Your task to perform on an android device: Open privacy settings Image 0: 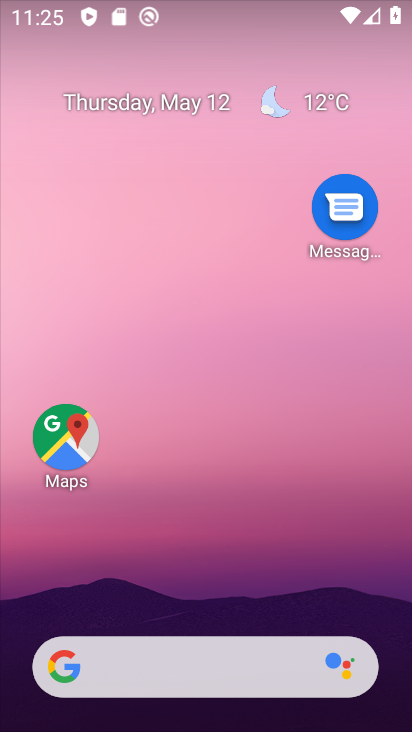
Step 0: press home button
Your task to perform on an android device: Open privacy settings Image 1: 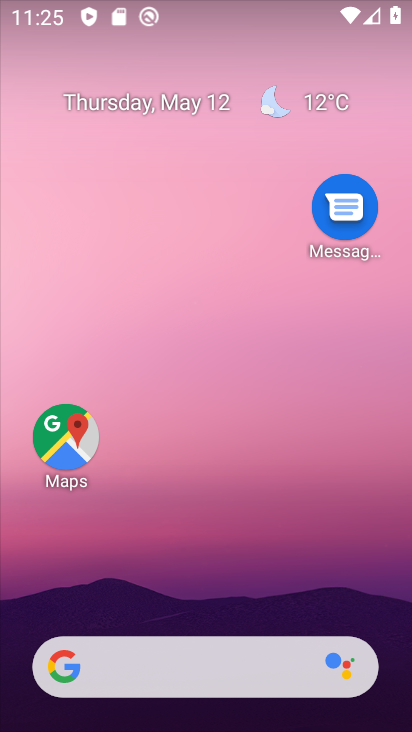
Step 1: drag from (305, 580) to (365, 179)
Your task to perform on an android device: Open privacy settings Image 2: 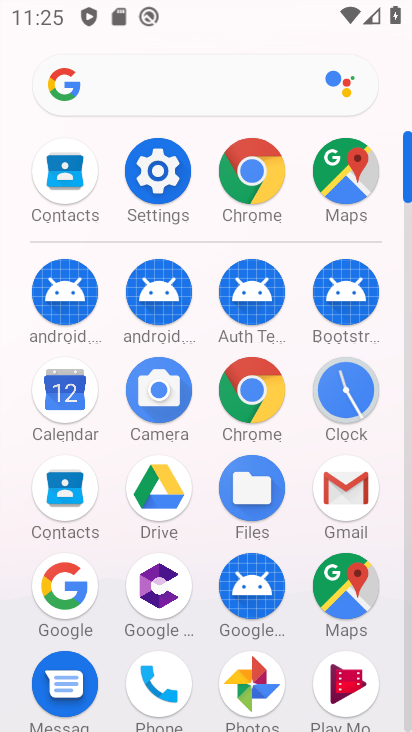
Step 2: click (171, 192)
Your task to perform on an android device: Open privacy settings Image 3: 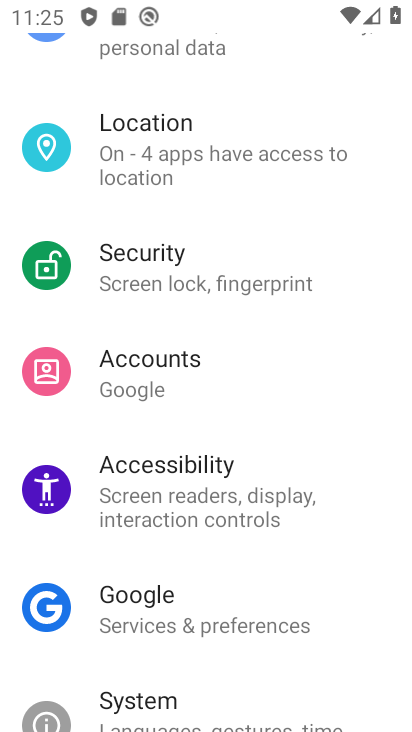
Step 3: drag from (179, 207) to (178, 614)
Your task to perform on an android device: Open privacy settings Image 4: 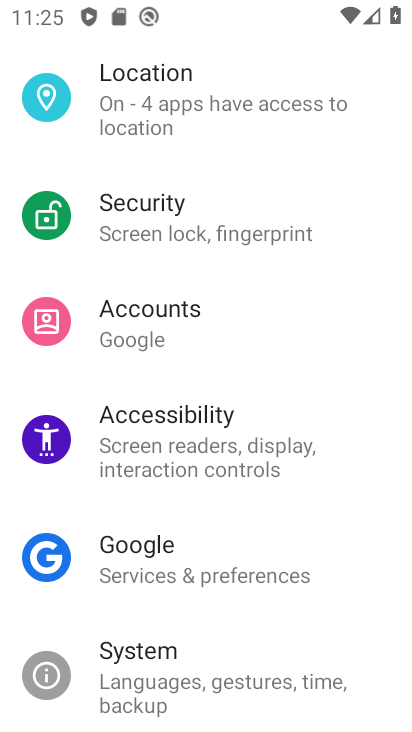
Step 4: drag from (173, 252) to (250, 721)
Your task to perform on an android device: Open privacy settings Image 5: 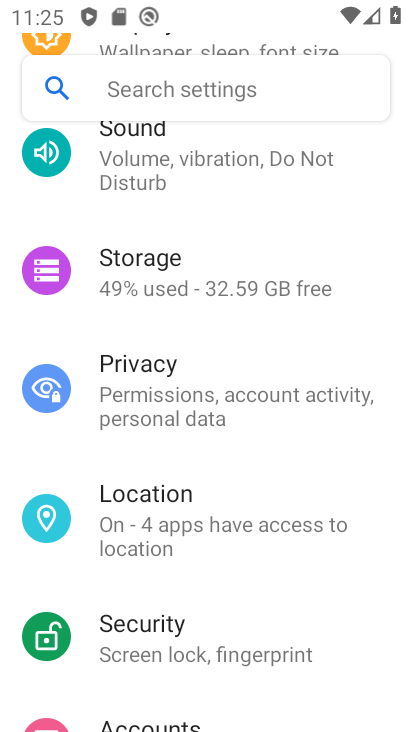
Step 5: click (190, 392)
Your task to perform on an android device: Open privacy settings Image 6: 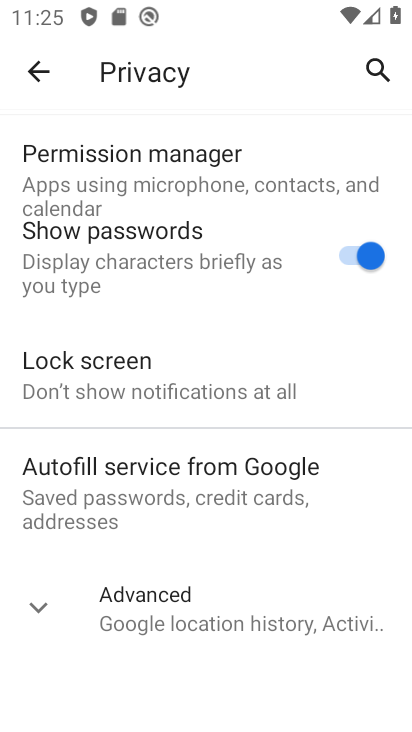
Step 6: task complete